Your task to perform on an android device: Open the calendar and show me this week's events? Image 0: 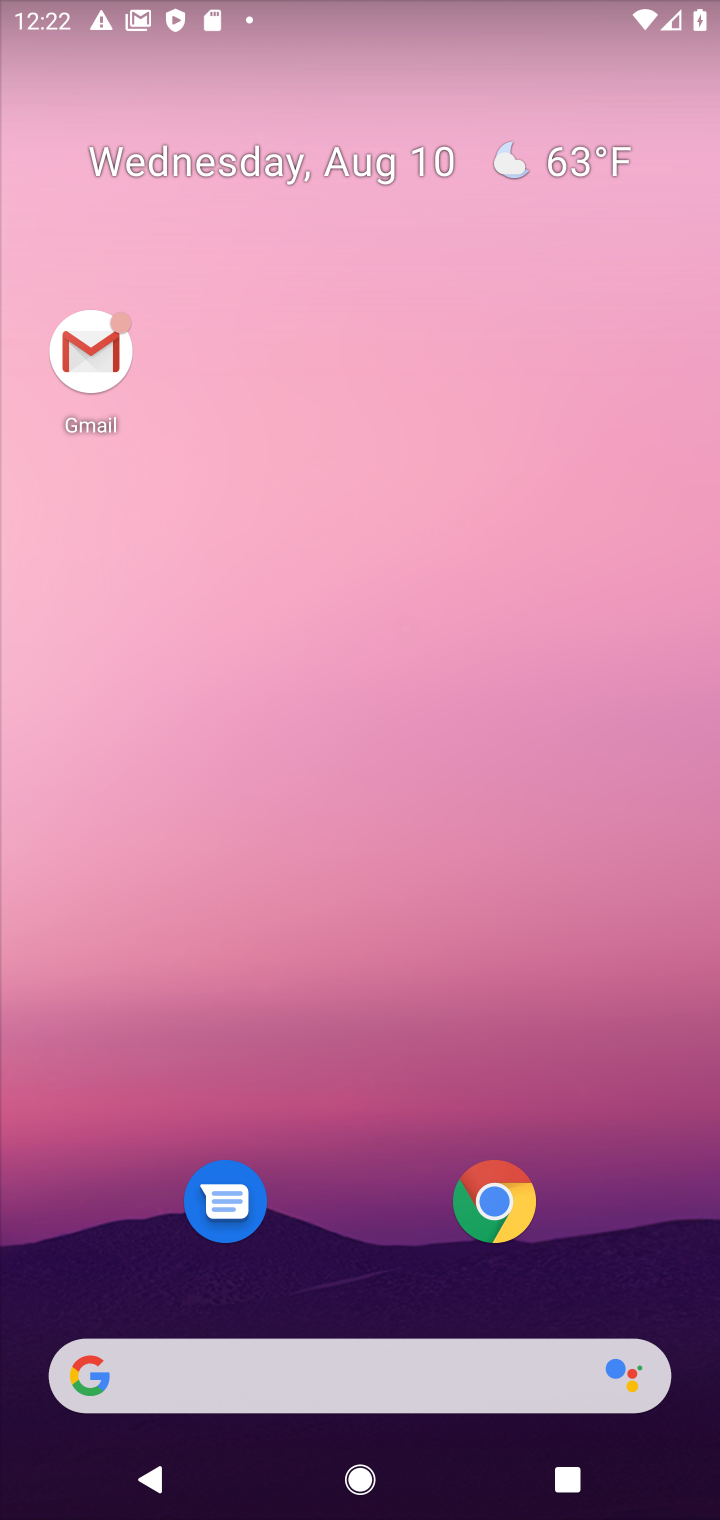
Step 0: drag from (374, 420) to (329, 229)
Your task to perform on an android device: Open the calendar and show me this week's events? Image 1: 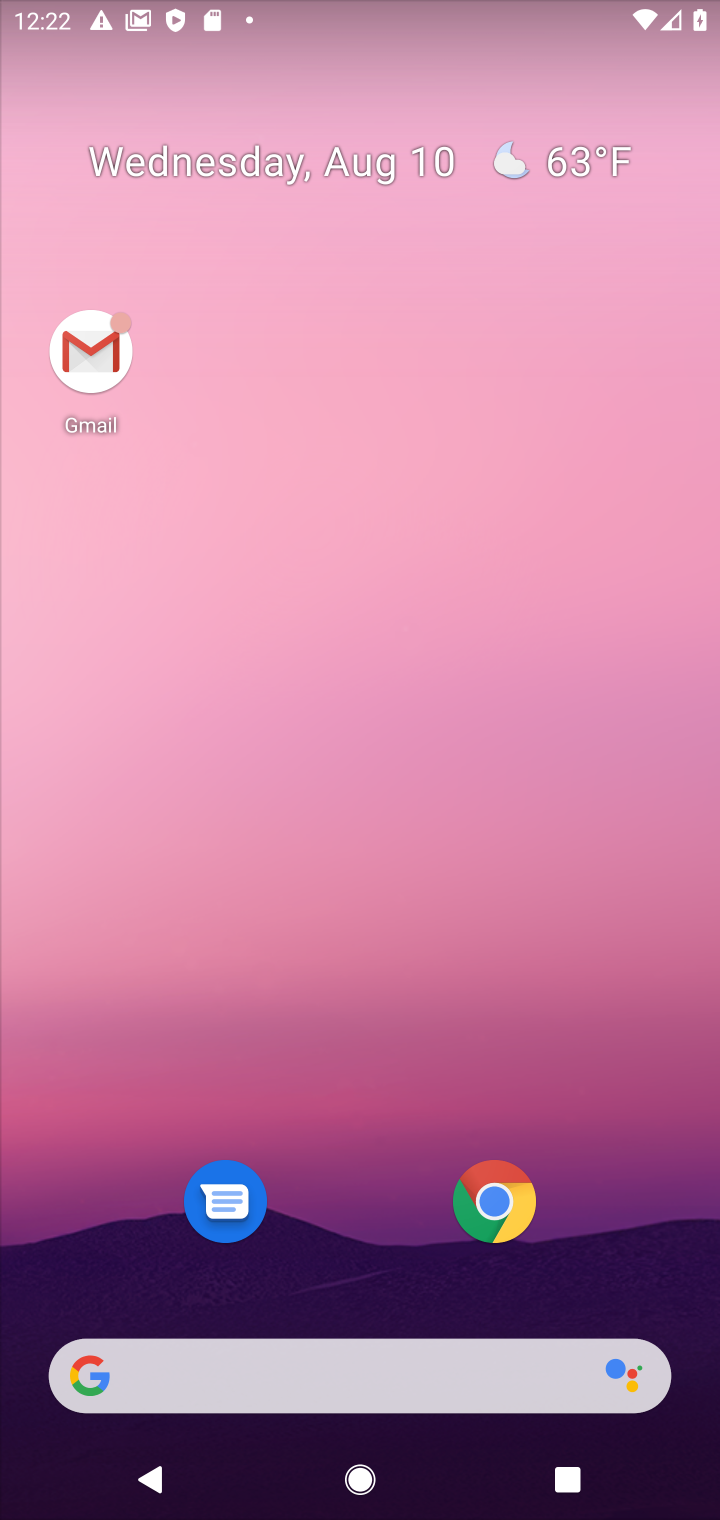
Step 1: drag from (363, 1288) to (357, 455)
Your task to perform on an android device: Open the calendar and show me this week's events? Image 2: 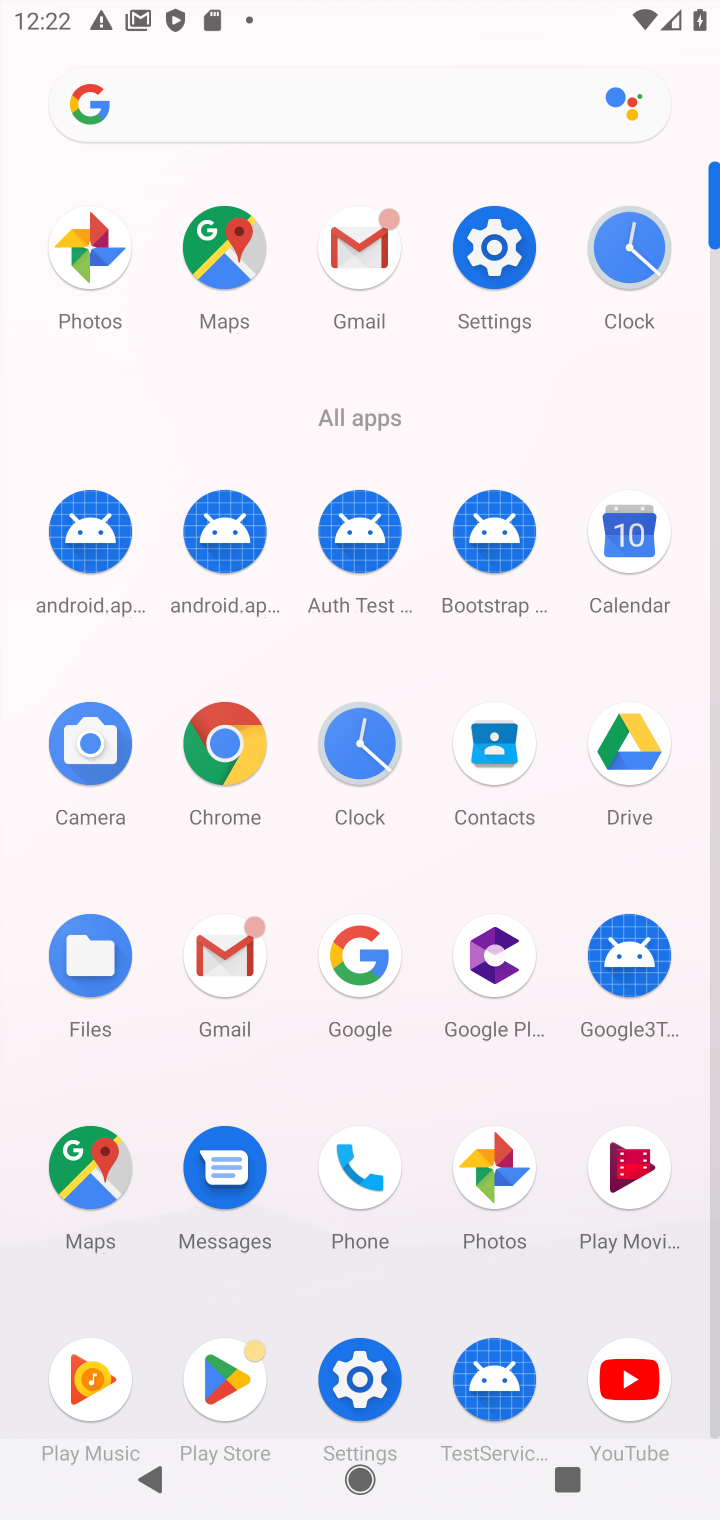
Step 2: click (620, 516)
Your task to perform on an android device: Open the calendar and show me this week's events? Image 3: 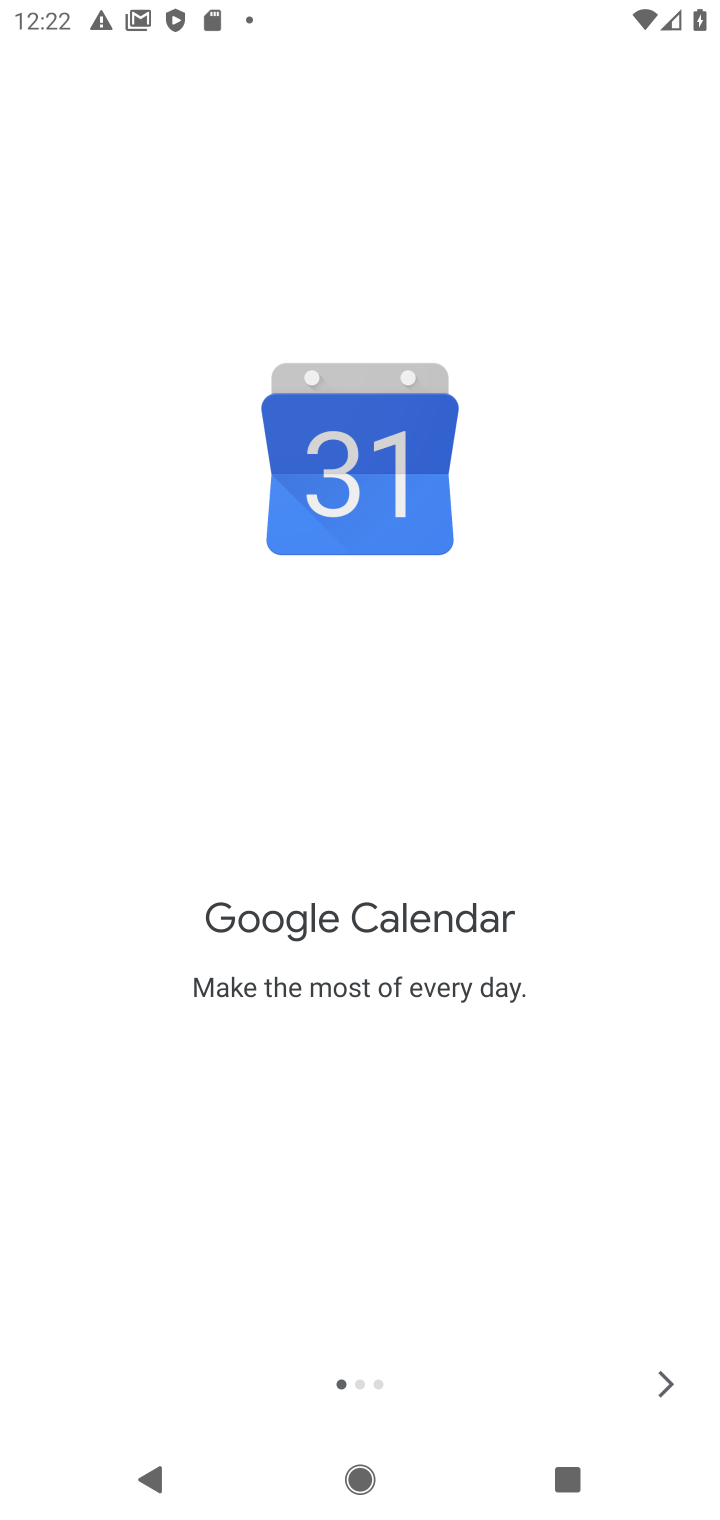
Step 3: click (658, 1377)
Your task to perform on an android device: Open the calendar and show me this week's events? Image 4: 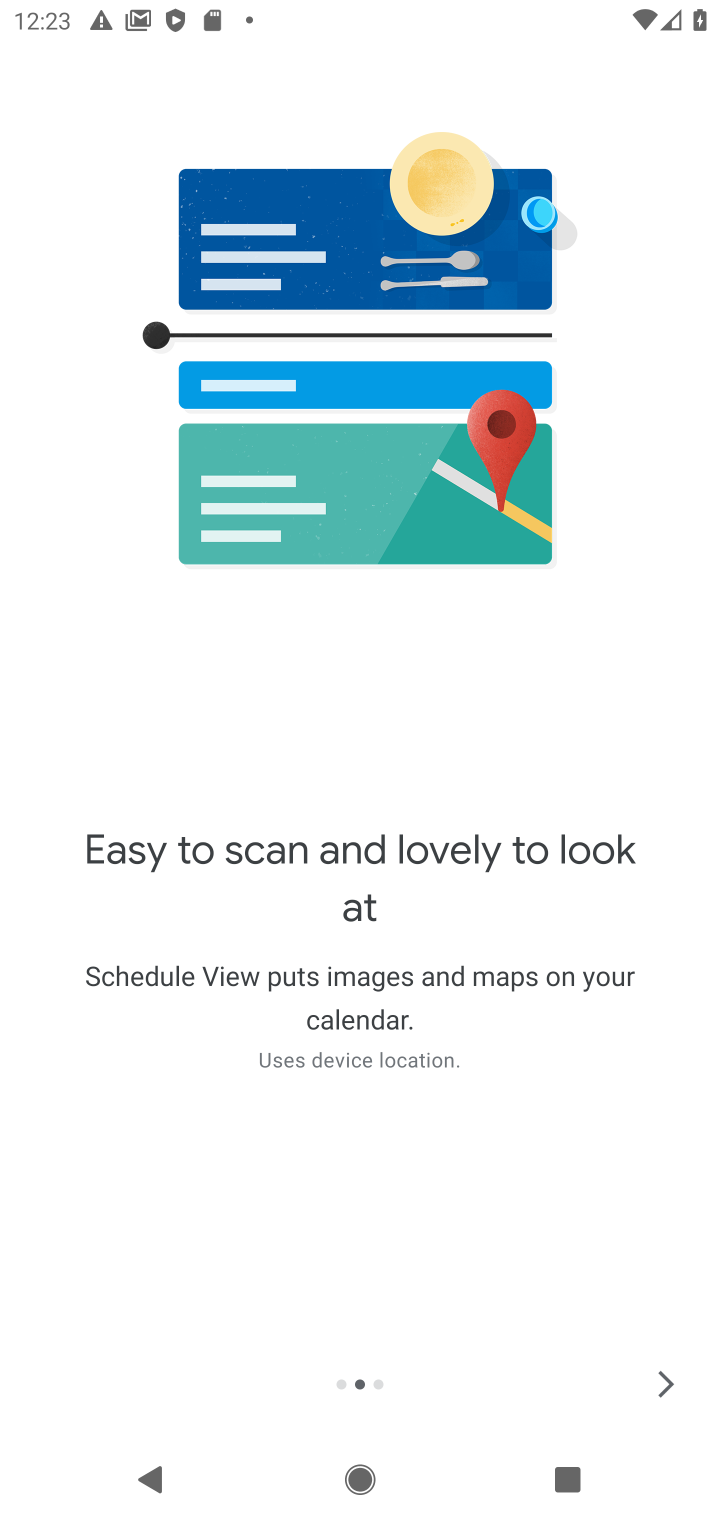
Step 4: click (656, 1375)
Your task to perform on an android device: Open the calendar and show me this week's events? Image 5: 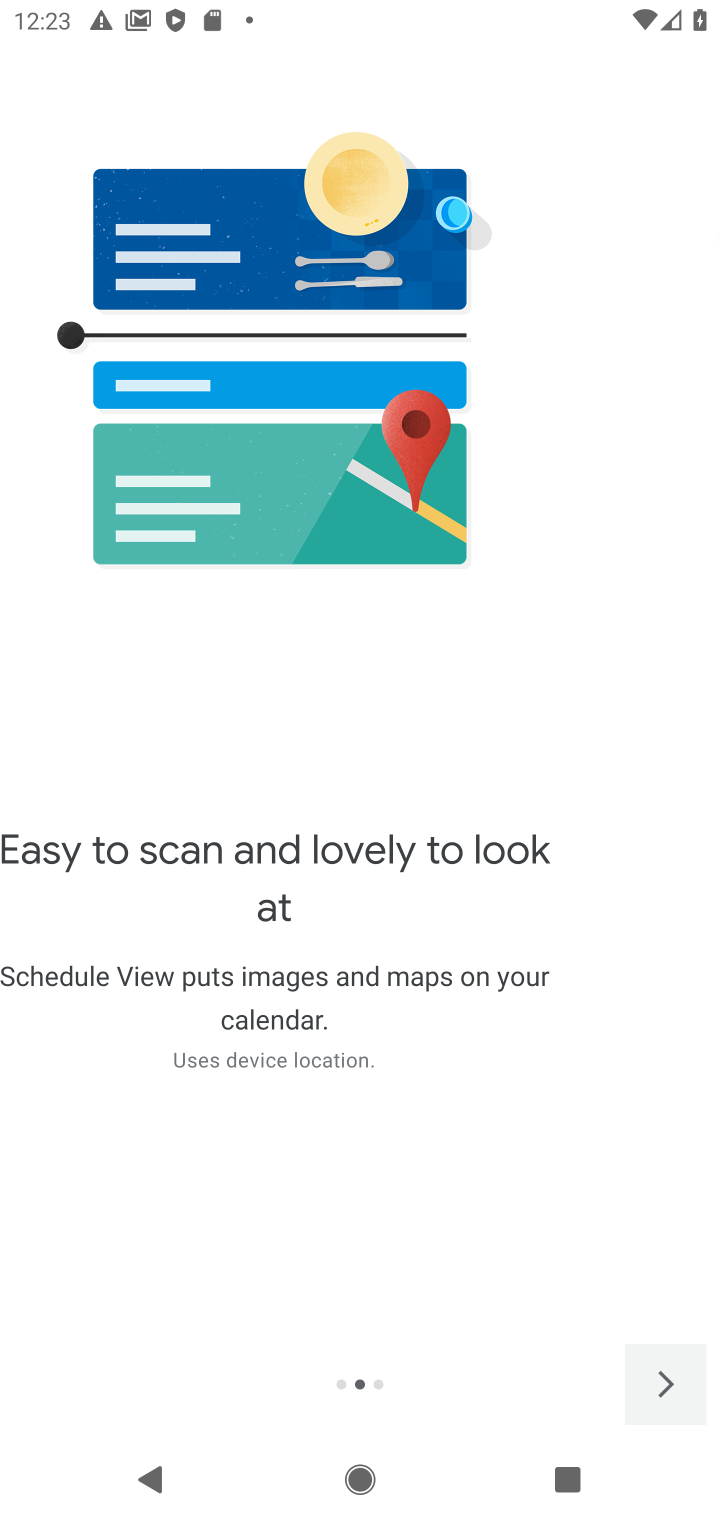
Step 5: click (656, 1375)
Your task to perform on an android device: Open the calendar and show me this week's events? Image 6: 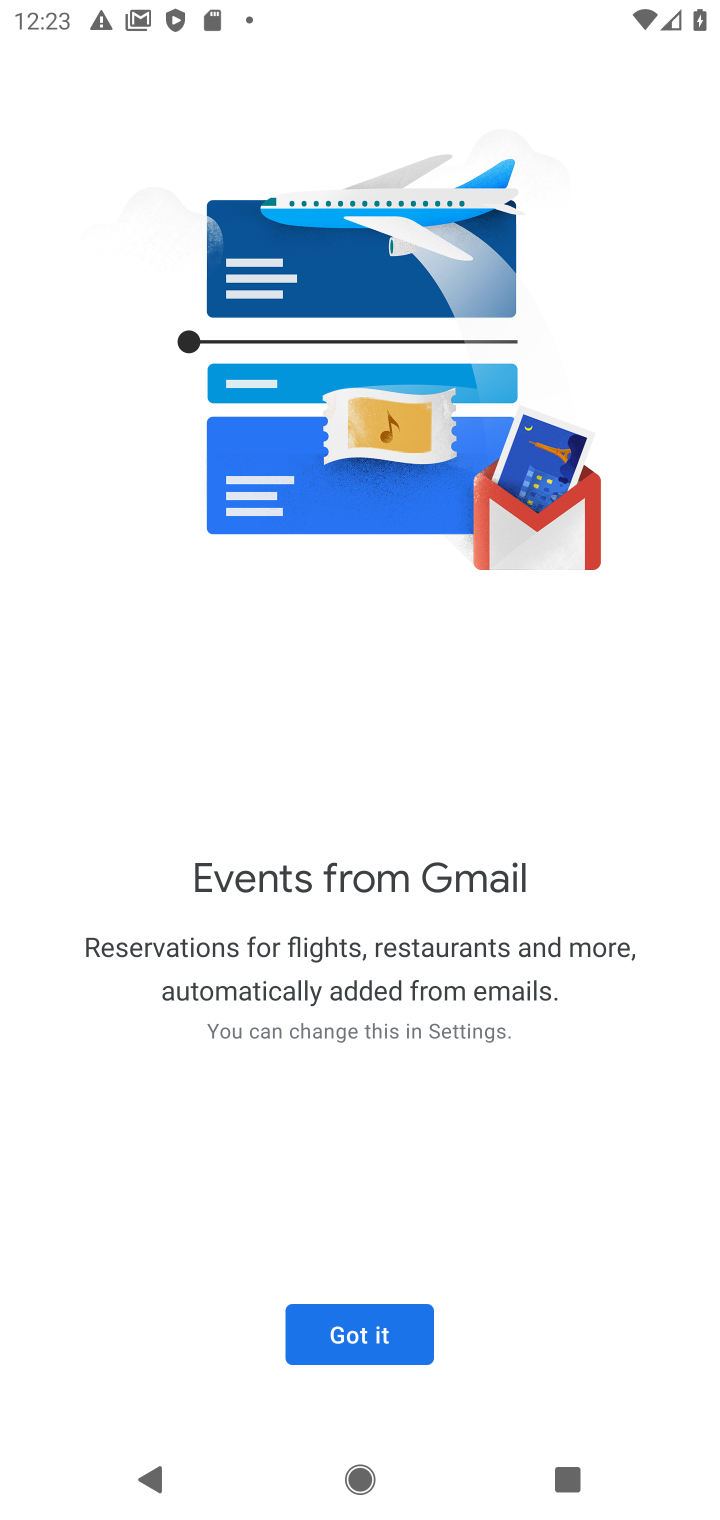
Step 6: click (420, 1335)
Your task to perform on an android device: Open the calendar and show me this week's events? Image 7: 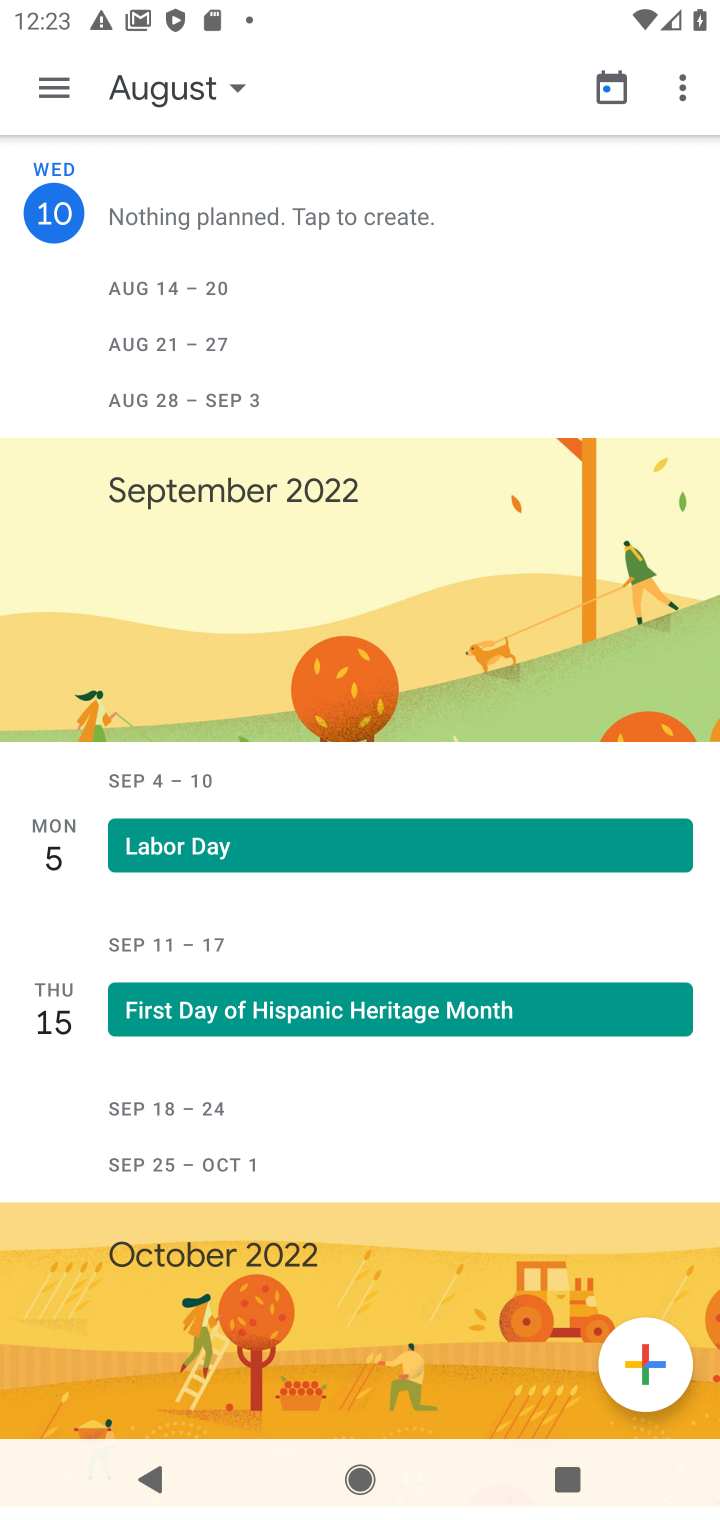
Step 7: click (61, 83)
Your task to perform on an android device: Open the calendar and show me this week's events? Image 8: 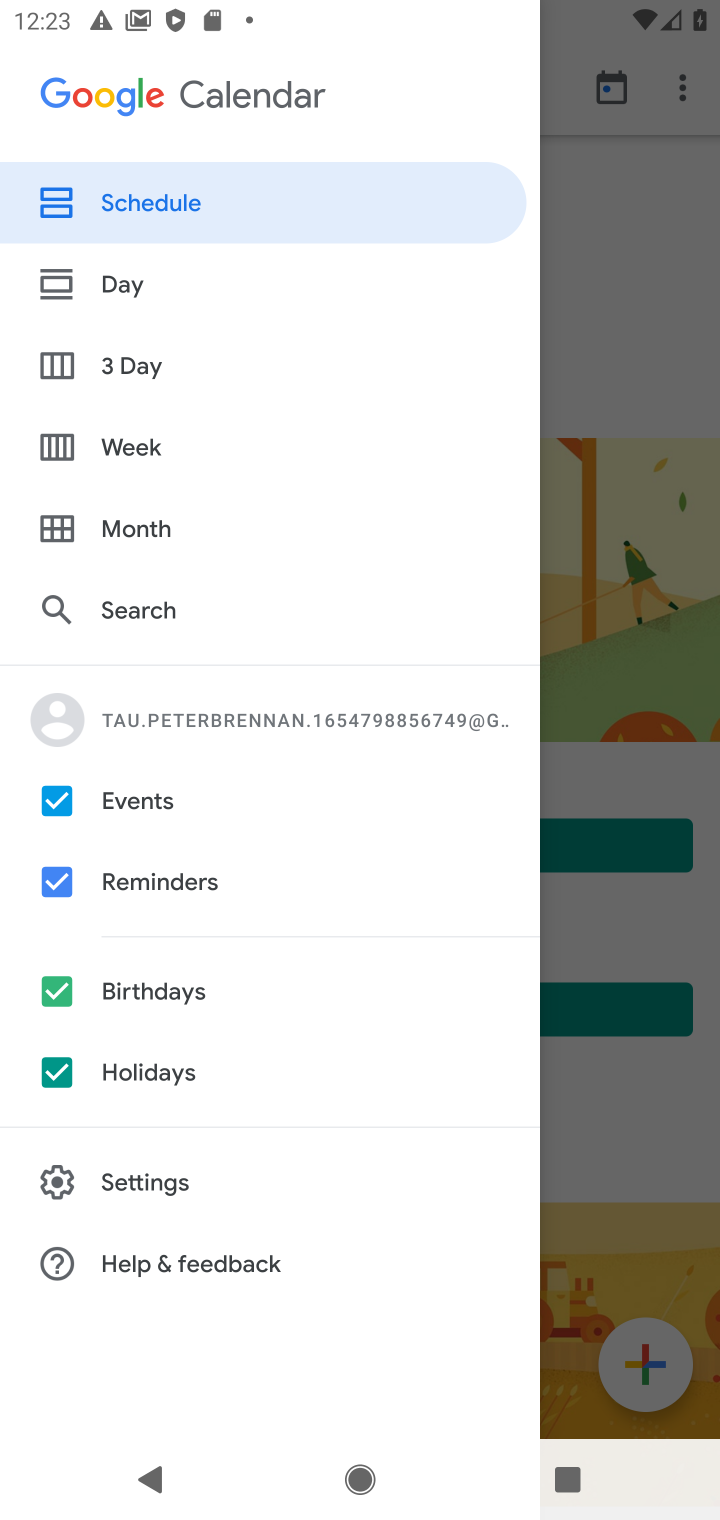
Step 8: click (223, 438)
Your task to perform on an android device: Open the calendar and show me this week's events? Image 9: 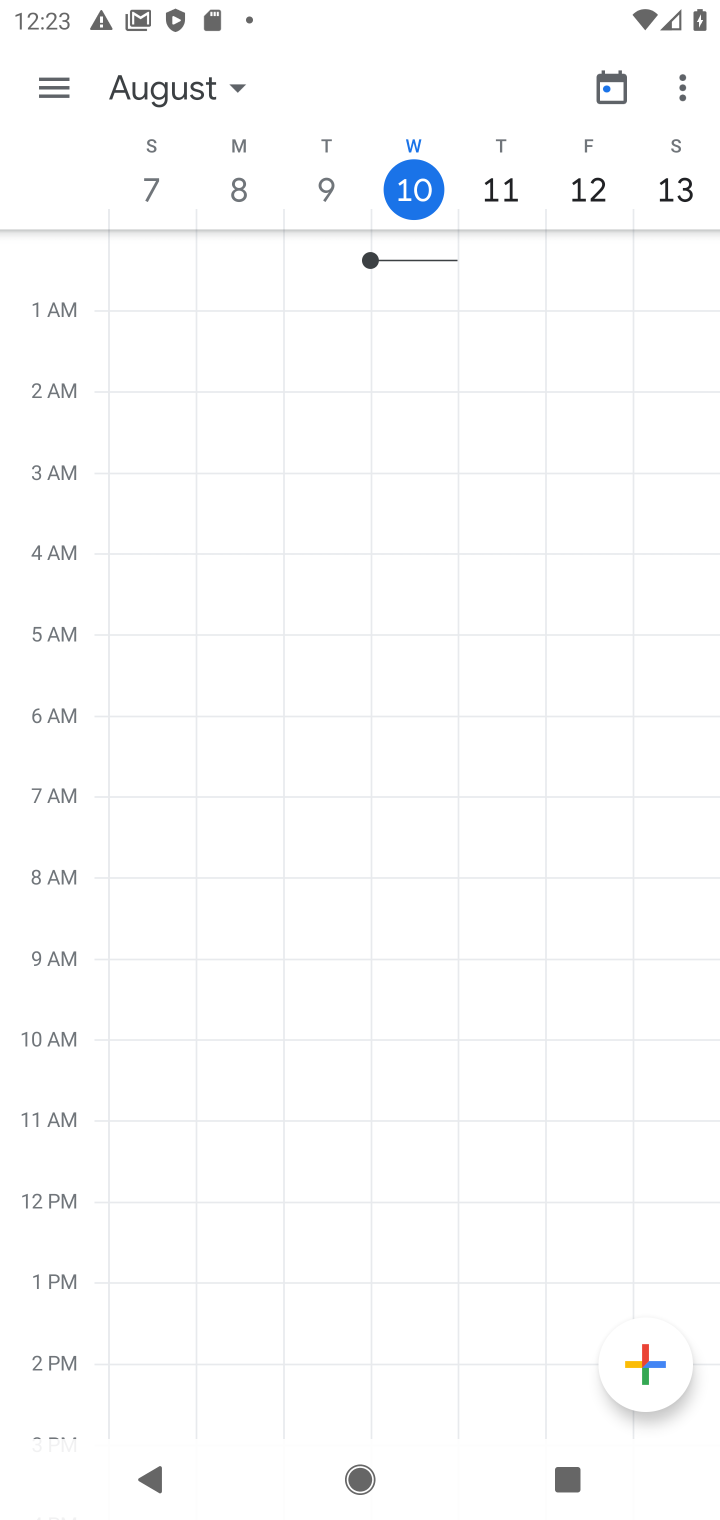
Step 9: task complete